Your task to perform on an android device: turn off airplane mode Image 0: 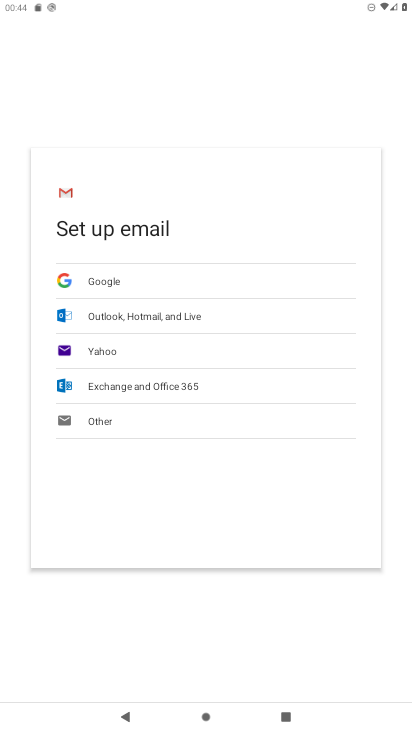
Step 0: drag from (271, 10) to (252, 590)
Your task to perform on an android device: turn off airplane mode Image 1: 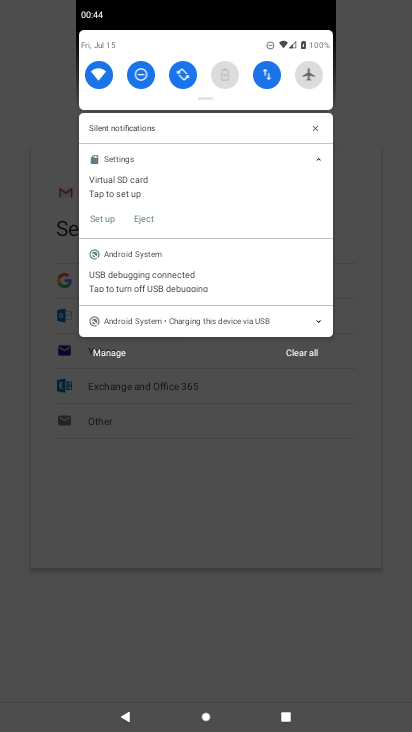
Step 1: task complete